Your task to perform on an android device: install app "Reddit" Image 0: 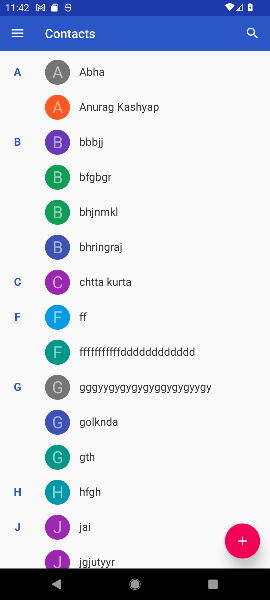
Step 0: press back button
Your task to perform on an android device: install app "Reddit" Image 1: 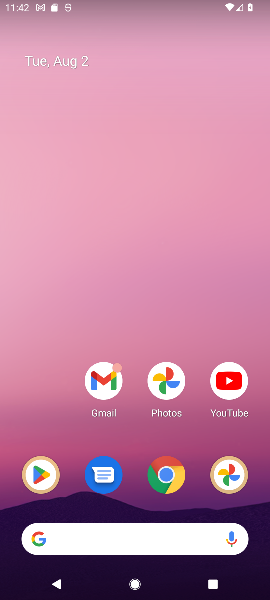
Step 1: click (42, 473)
Your task to perform on an android device: install app "Reddit" Image 2: 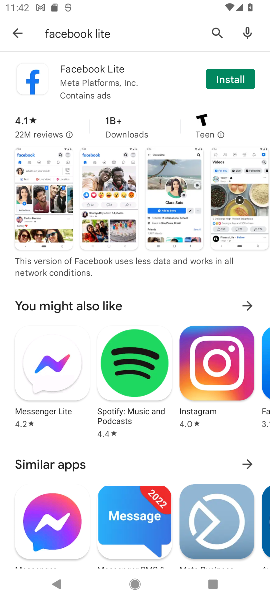
Step 2: click (217, 26)
Your task to perform on an android device: install app "Reddit" Image 3: 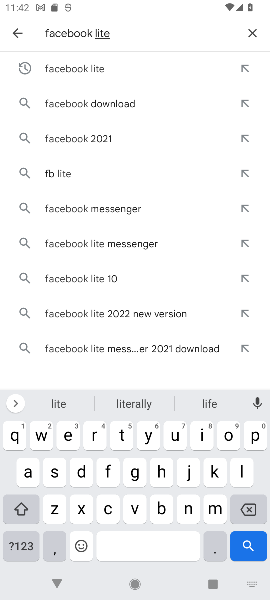
Step 3: click (253, 26)
Your task to perform on an android device: install app "Reddit" Image 4: 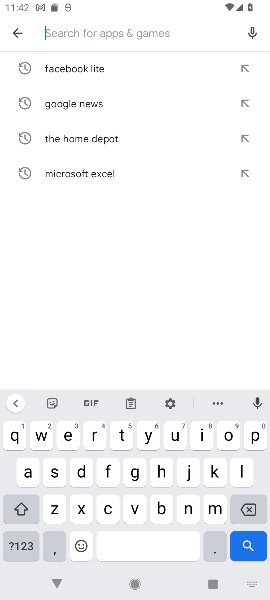
Step 4: type "Reddit""
Your task to perform on an android device: install app "Reddit" Image 5: 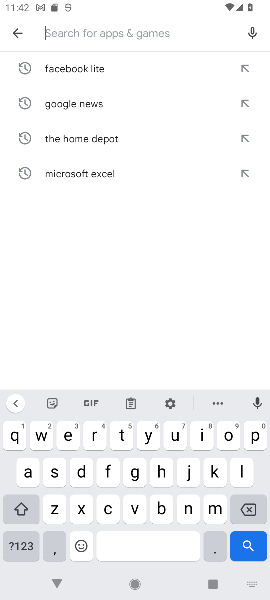
Step 5: type ""
Your task to perform on an android device: install app "Reddit" Image 6: 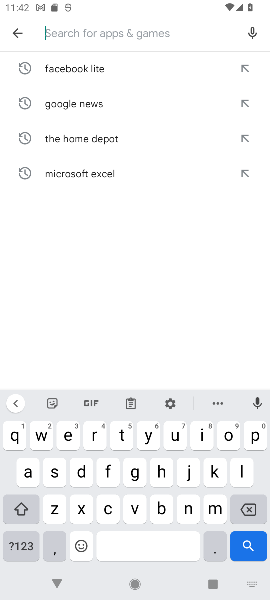
Step 6: press home button
Your task to perform on an android device: install app "Reddit" Image 7: 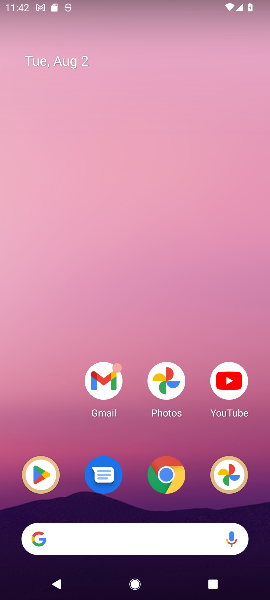
Step 7: click (39, 475)
Your task to perform on an android device: install app "Reddit" Image 8: 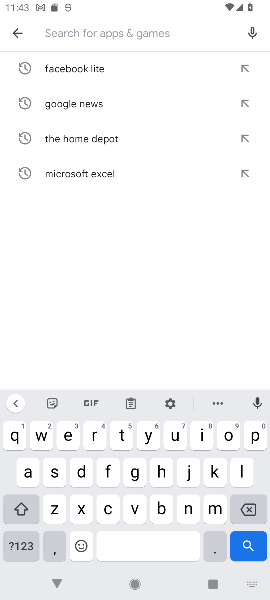
Step 8: type "Reddit"
Your task to perform on an android device: install app "Reddit" Image 9: 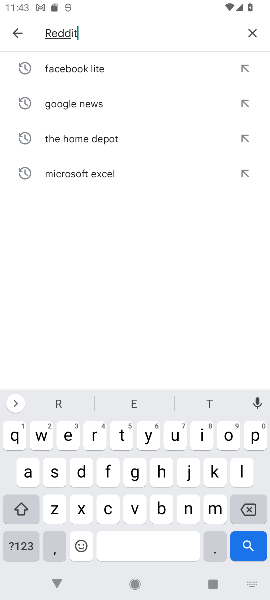
Step 9: type ""
Your task to perform on an android device: install app "Reddit" Image 10: 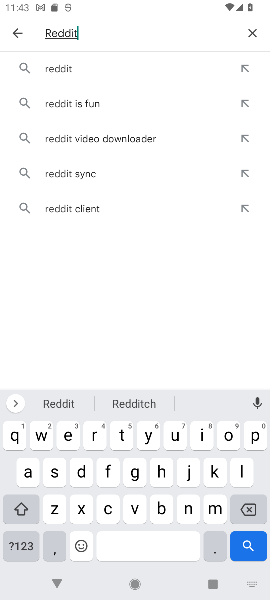
Step 10: click (120, 58)
Your task to perform on an android device: install app "Reddit" Image 11: 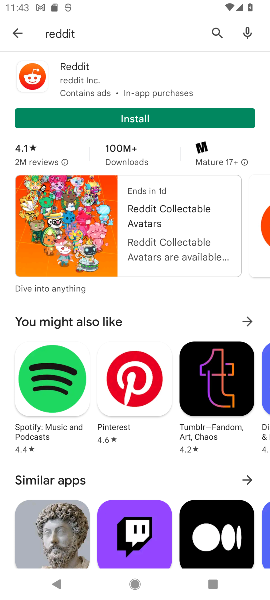
Step 11: click (98, 118)
Your task to perform on an android device: install app "Reddit" Image 12: 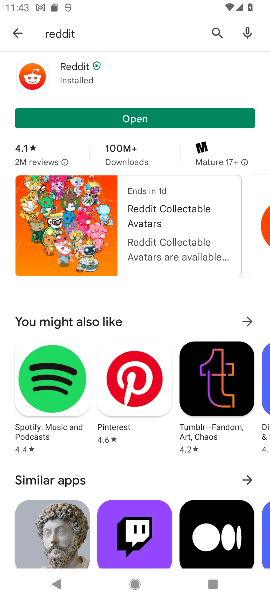
Step 12: task complete